Your task to perform on an android device: When is my next meeting? Image 0: 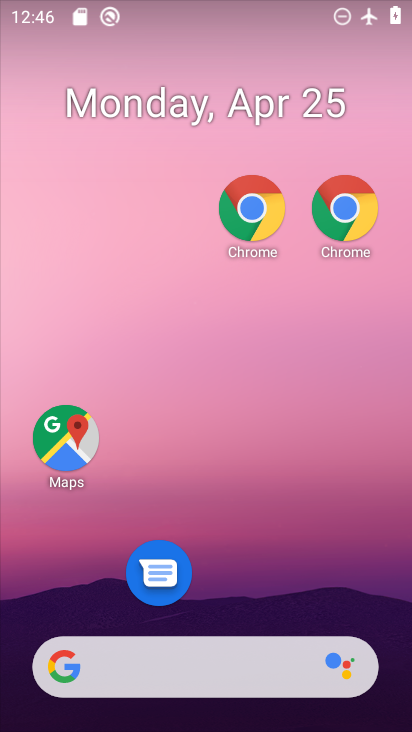
Step 0: drag from (266, 678) to (207, 93)
Your task to perform on an android device: When is my next meeting? Image 1: 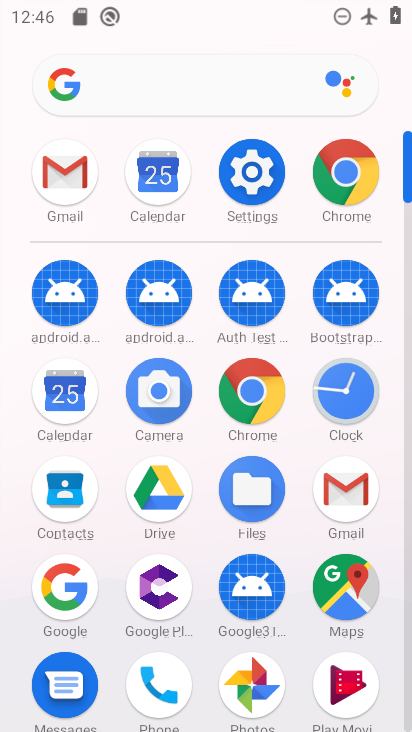
Step 1: click (54, 393)
Your task to perform on an android device: When is my next meeting? Image 2: 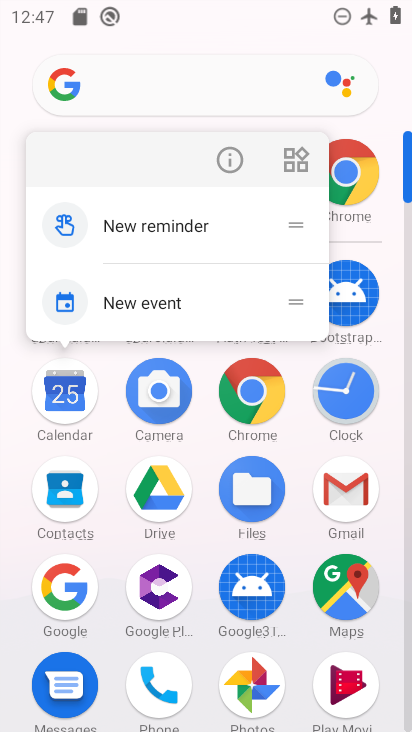
Step 2: click (73, 397)
Your task to perform on an android device: When is my next meeting? Image 3: 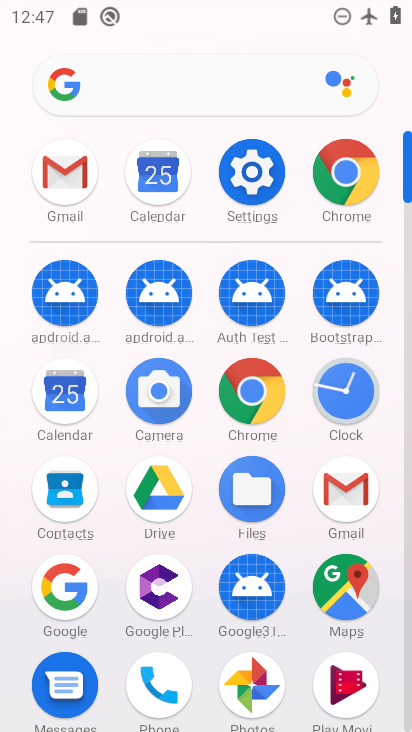
Step 3: click (73, 397)
Your task to perform on an android device: When is my next meeting? Image 4: 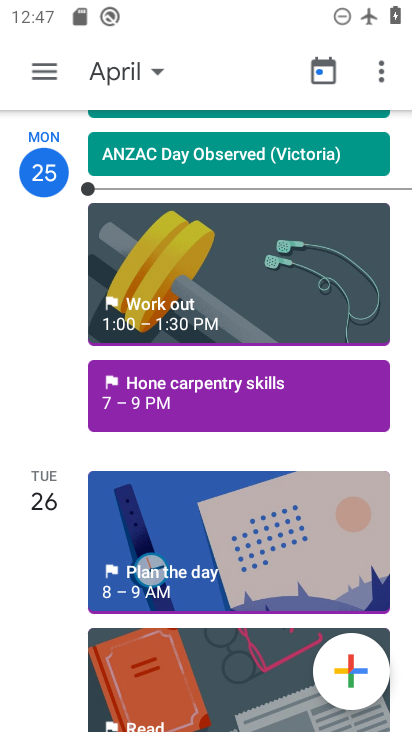
Step 4: task complete